Your task to perform on an android device: Open the phone app and click the voicemail tab. Image 0: 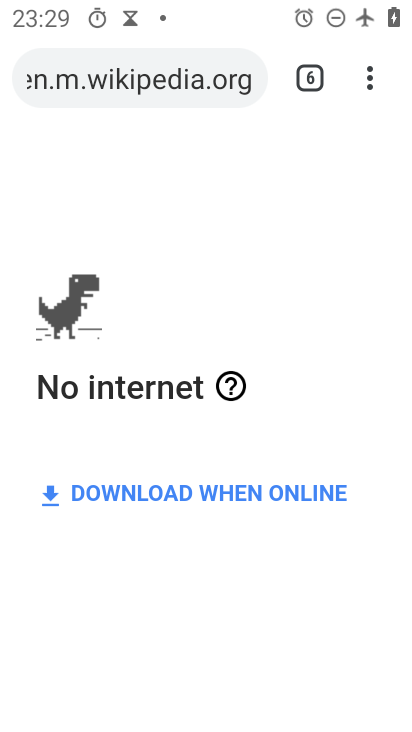
Step 0: press home button
Your task to perform on an android device: Open the phone app and click the voicemail tab. Image 1: 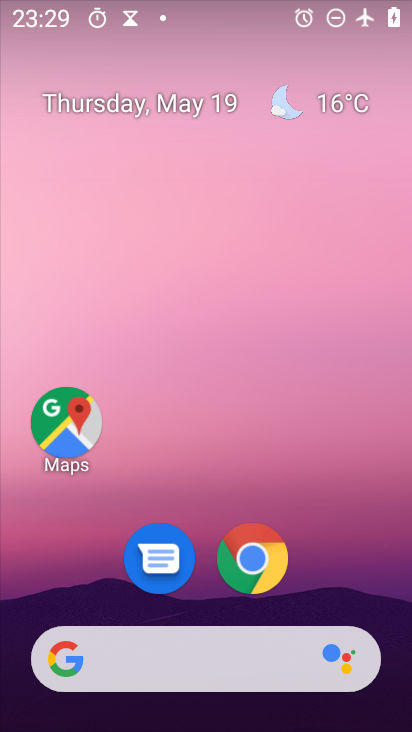
Step 1: drag from (220, 718) to (222, 111)
Your task to perform on an android device: Open the phone app and click the voicemail tab. Image 2: 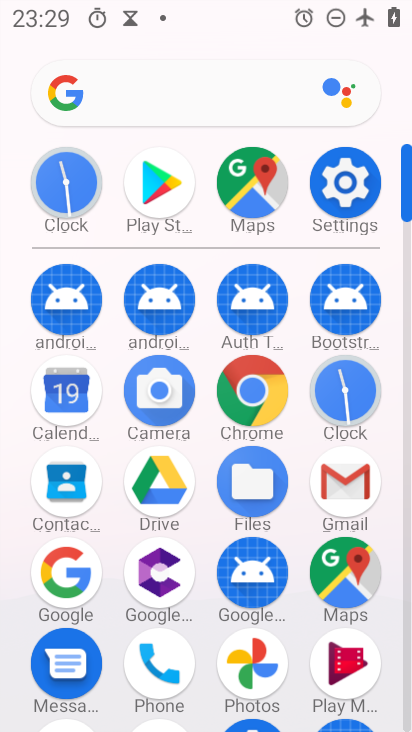
Step 2: drag from (211, 691) to (198, 347)
Your task to perform on an android device: Open the phone app and click the voicemail tab. Image 3: 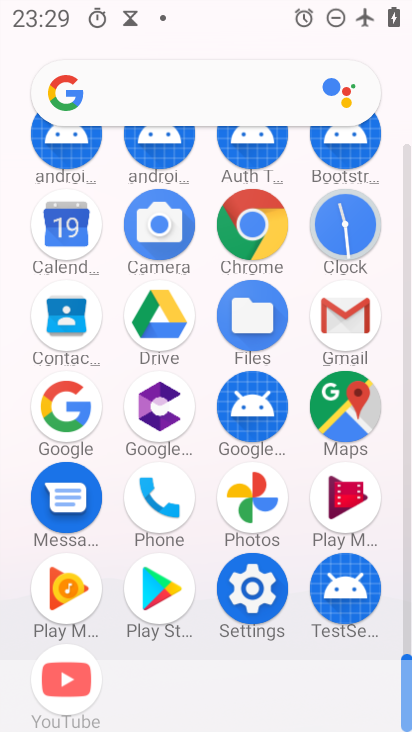
Step 3: click (158, 505)
Your task to perform on an android device: Open the phone app and click the voicemail tab. Image 4: 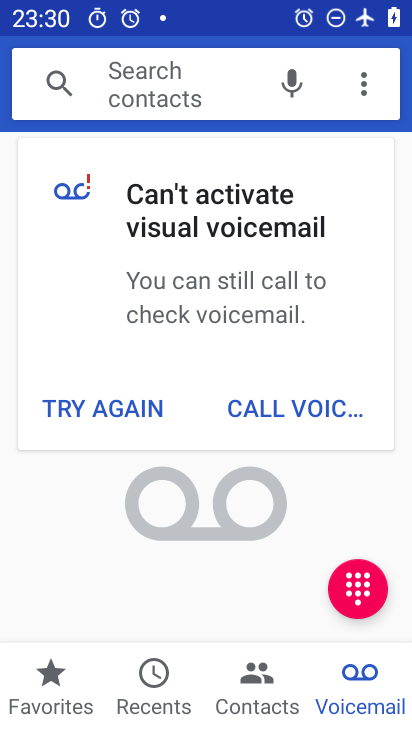
Step 4: task complete